Your task to perform on an android device: snooze an email in the gmail app Image 0: 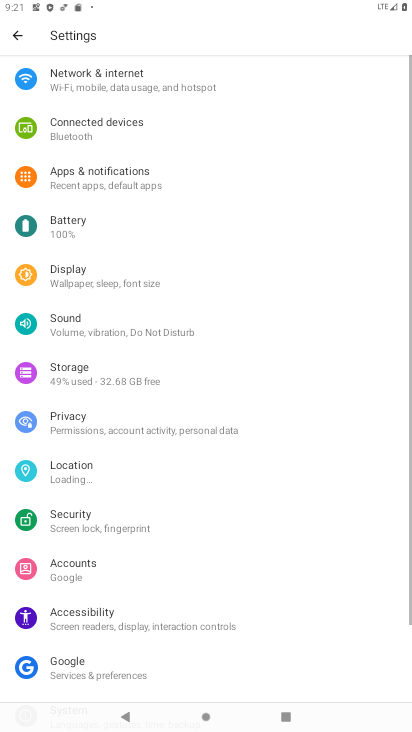
Step 0: press home button
Your task to perform on an android device: snooze an email in the gmail app Image 1: 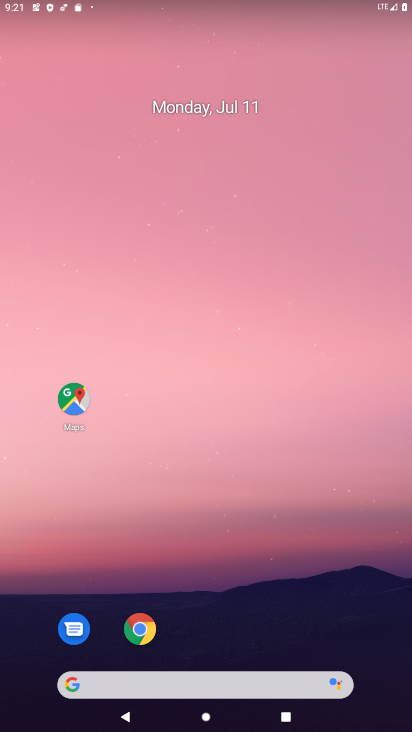
Step 1: drag from (121, 529) to (206, 319)
Your task to perform on an android device: snooze an email in the gmail app Image 2: 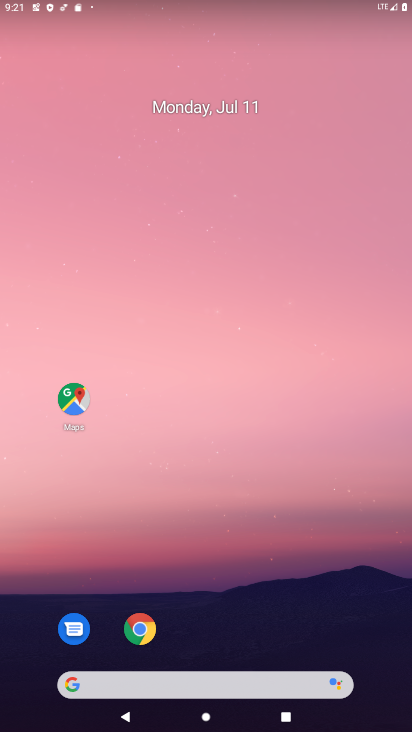
Step 2: drag from (27, 700) to (375, 129)
Your task to perform on an android device: snooze an email in the gmail app Image 3: 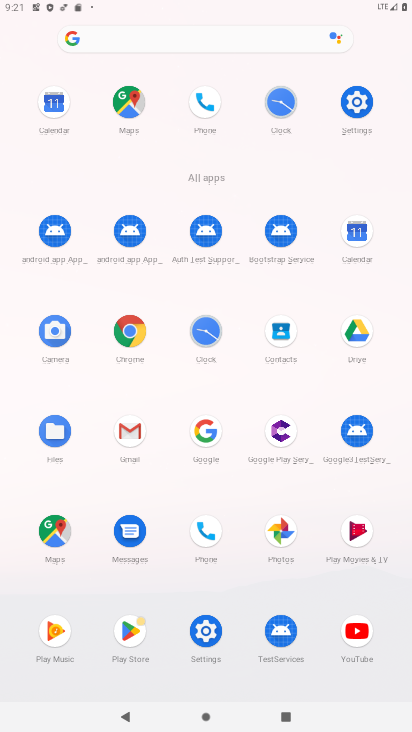
Step 3: click (128, 435)
Your task to perform on an android device: snooze an email in the gmail app Image 4: 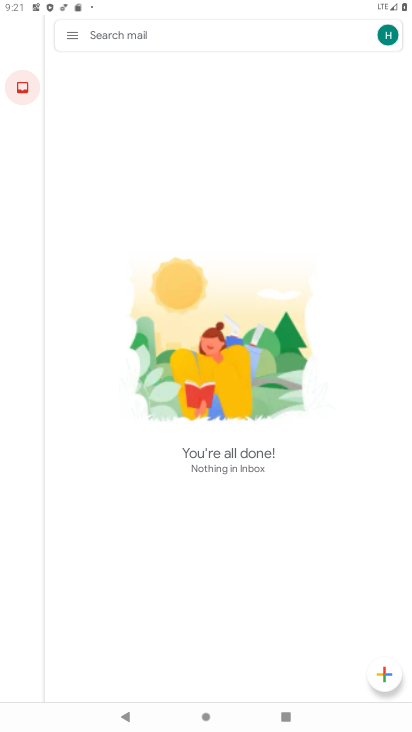
Step 4: click (67, 31)
Your task to perform on an android device: snooze an email in the gmail app Image 5: 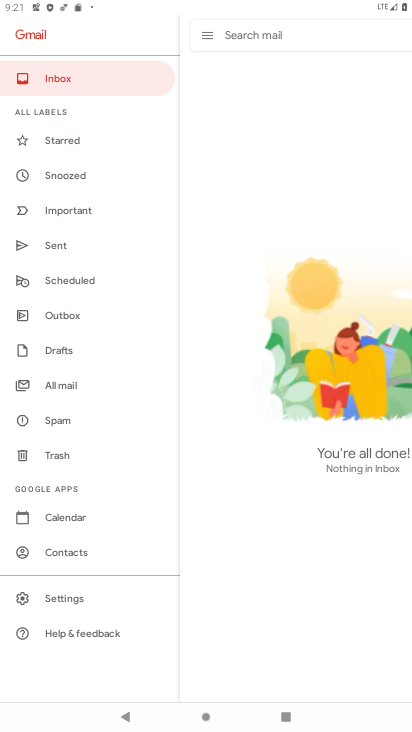
Step 5: click (65, 170)
Your task to perform on an android device: snooze an email in the gmail app Image 6: 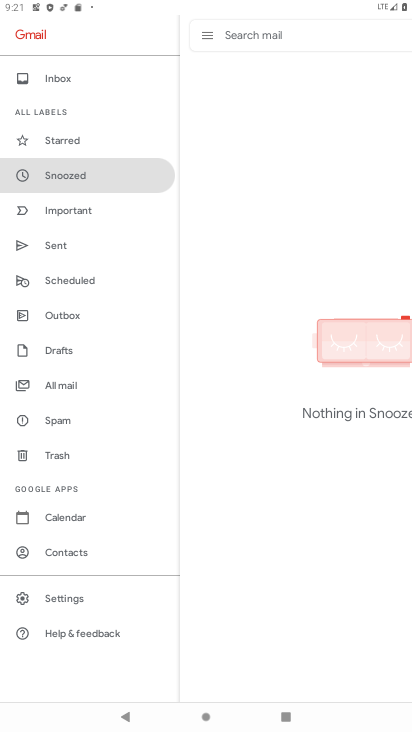
Step 6: task complete